Your task to perform on an android device: allow notifications from all sites in the chrome app Image 0: 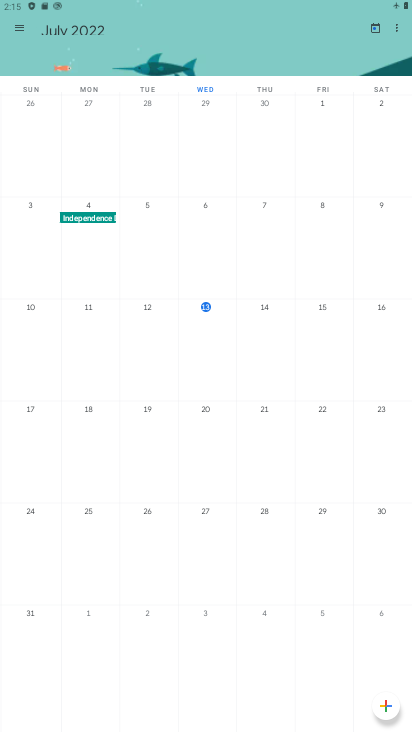
Step 0: press home button
Your task to perform on an android device: allow notifications from all sites in the chrome app Image 1: 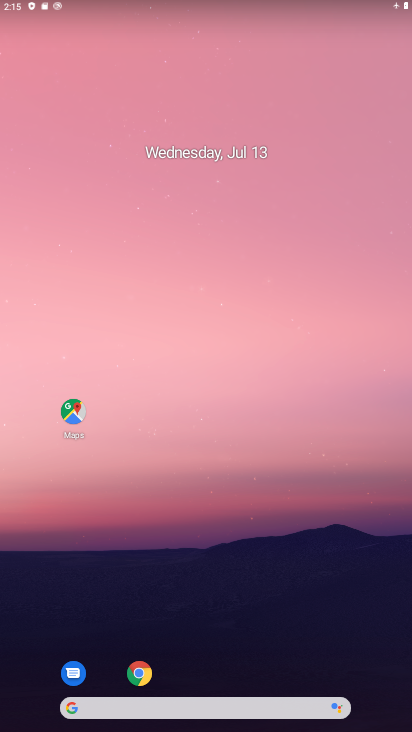
Step 1: click (139, 674)
Your task to perform on an android device: allow notifications from all sites in the chrome app Image 2: 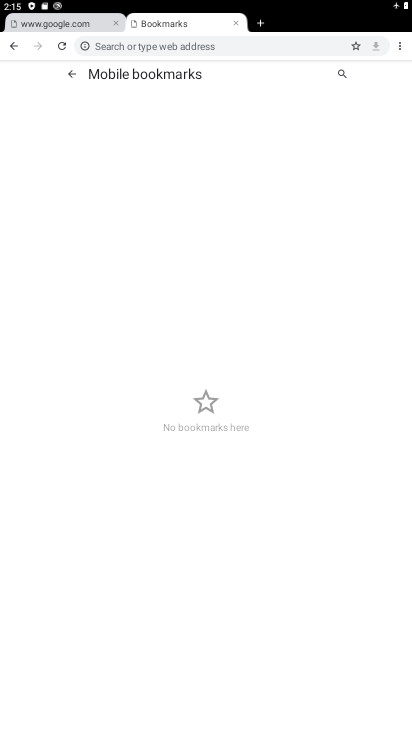
Step 2: click (399, 46)
Your task to perform on an android device: allow notifications from all sites in the chrome app Image 3: 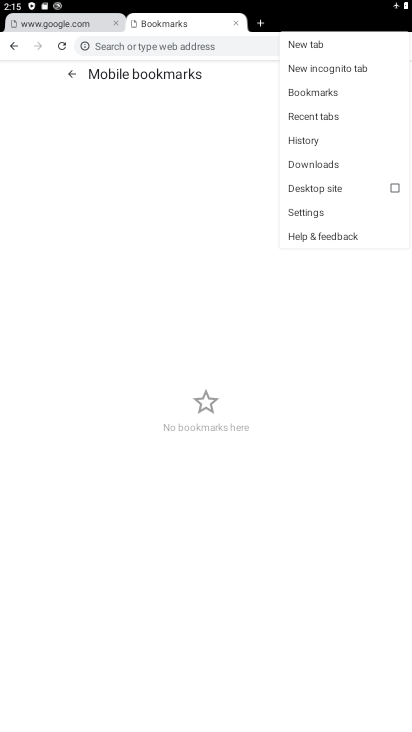
Step 3: click (312, 216)
Your task to perform on an android device: allow notifications from all sites in the chrome app Image 4: 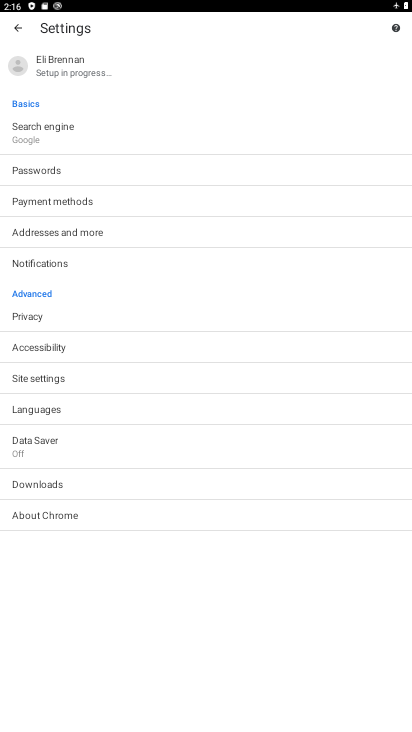
Step 4: click (39, 376)
Your task to perform on an android device: allow notifications from all sites in the chrome app Image 5: 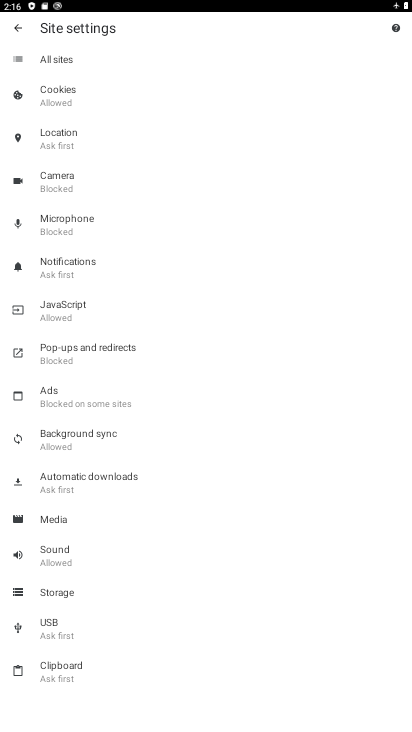
Step 5: click (67, 268)
Your task to perform on an android device: allow notifications from all sites in the chrome app Image 6: 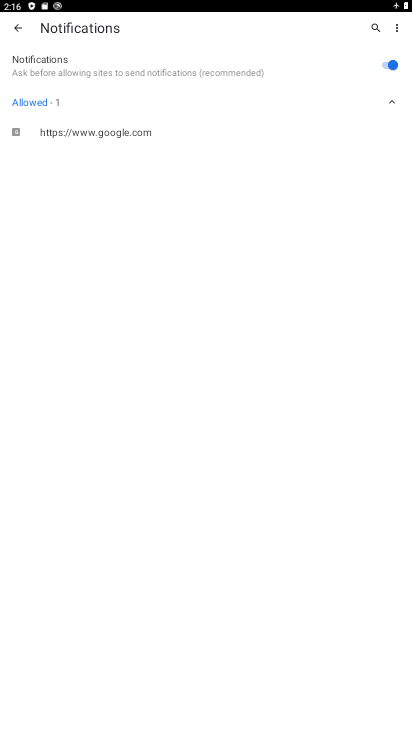
Step 6: task complete